Your task to perform on an android device: Open the calendar and show me this week's events? Image 0: 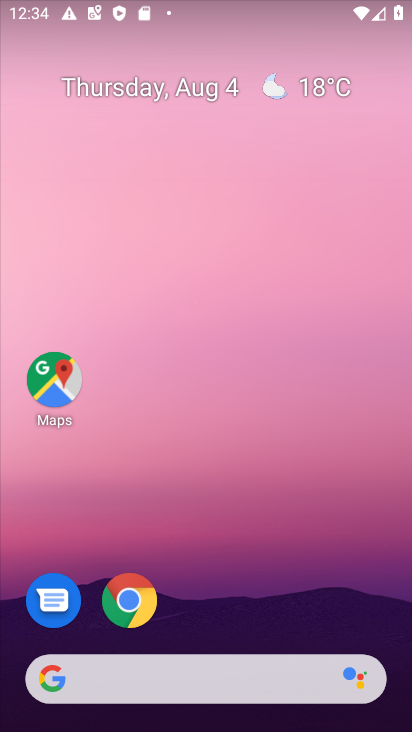
Step 0: drag from (113, 676) to (278, 251)
Your task to perform on an android device: Open the calendar and show me this week's events? Image 1: 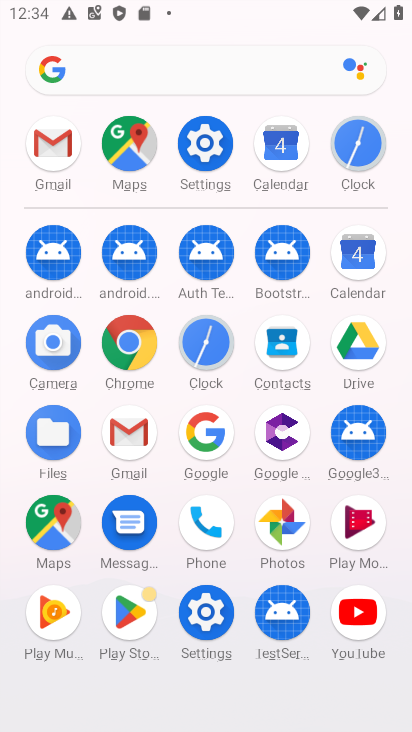
Step 1: click (362, 259)
Your task to perform on an android device: Open the calendar and show me this week's events? Image 2: 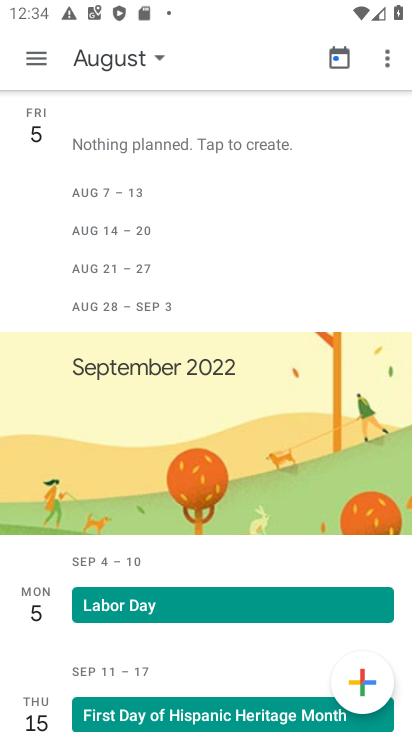
Step 2: click (114, 62)
Your task to perform on an android device: Open the calendar and show me this week's events? Image 3: 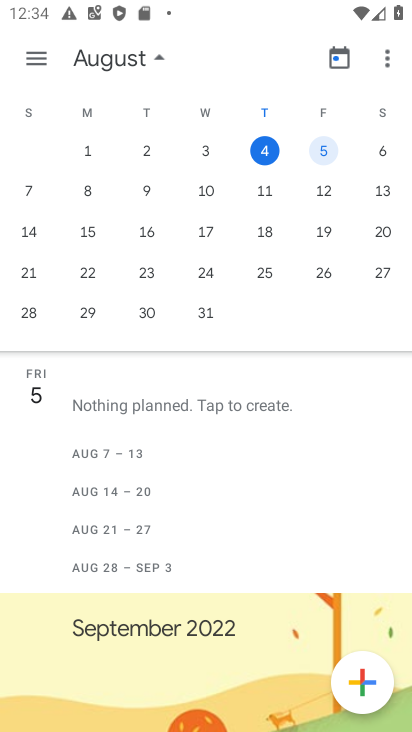
Step 3: click (259, 150)
Your task to perform on an android device: Open the calendar and show me this week's events? Image 4: 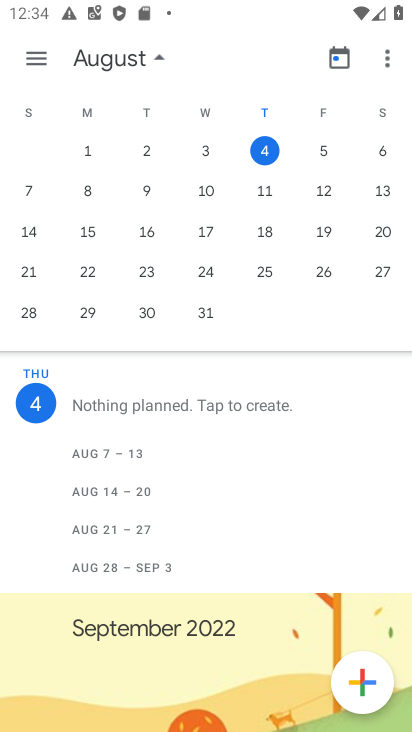
Step 4: click (42, 56)
Your task to perform on an android device: Open the calendar and show me this week's events? Image 5: 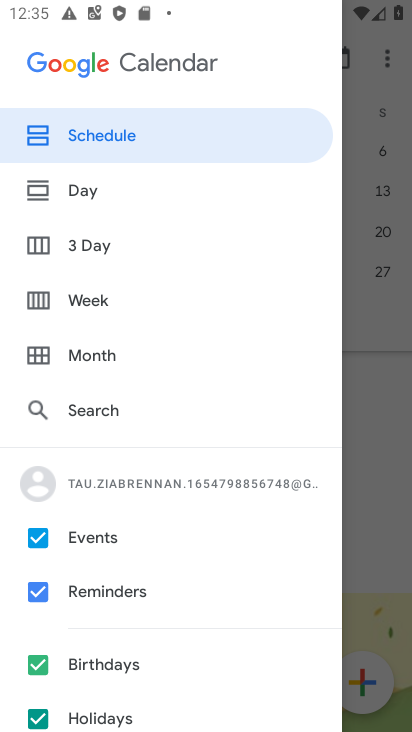
Step 5: click (93, 296)
Your task to perform on an android device: Open the calendar and show me this week's events? Image 6: 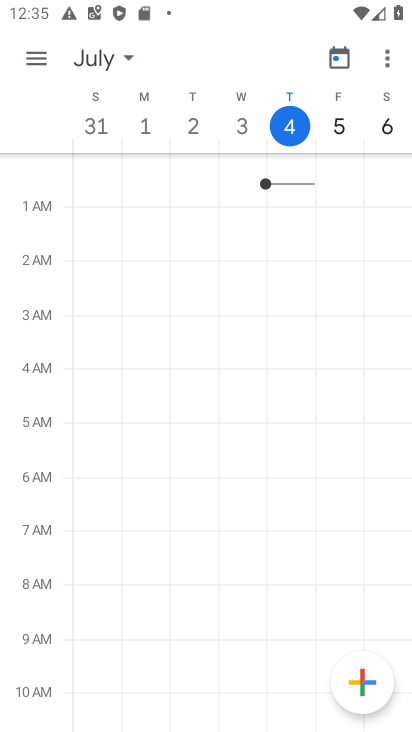
Step 6: click (42, 47)
Your task to perform on an android device: Open the calendar and show me this week's events? Image 7: 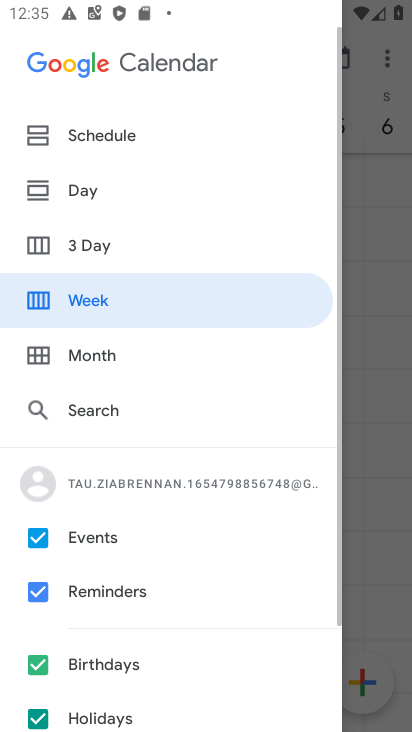
Step 7: click (115, 122)
Your task to perform on an android device: Open the calendar and show me this week's events? Image 8: 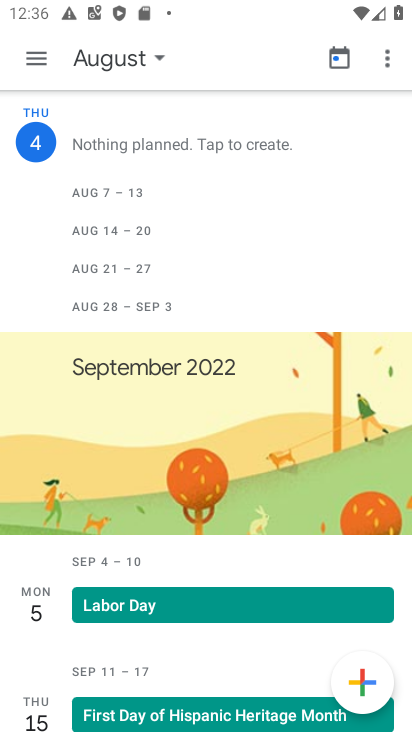
Step 8: task complete